Your task to perform on an android device: Open CNN.com Image 0: 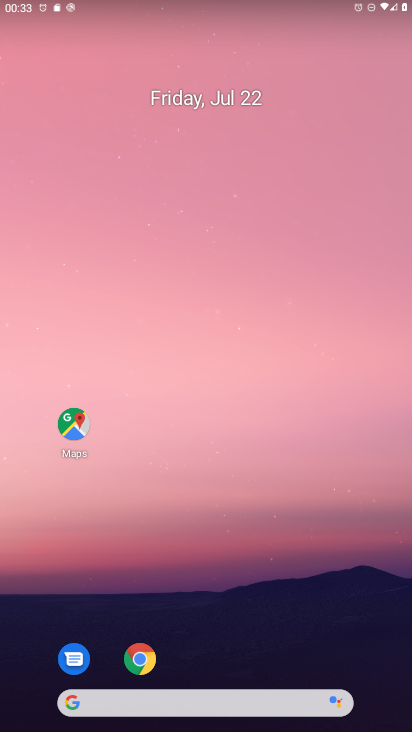
Step 0: click (138, 656)
Your task to perform on an android device: Open CNN.com Image 1: 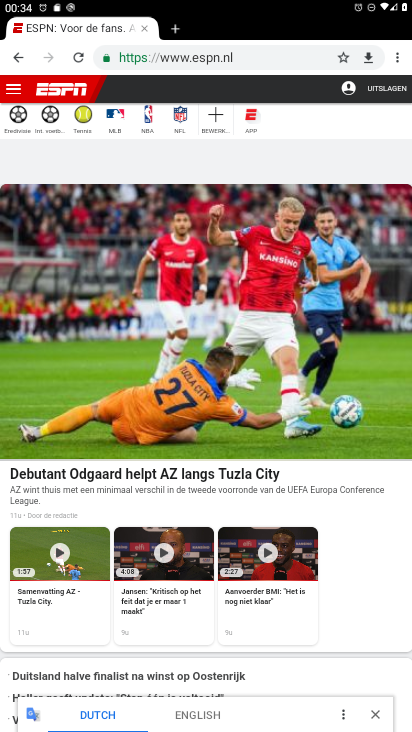
Step 1: click (274, 50)
Your task to perform on an android device: Open CNN.com Image 2: 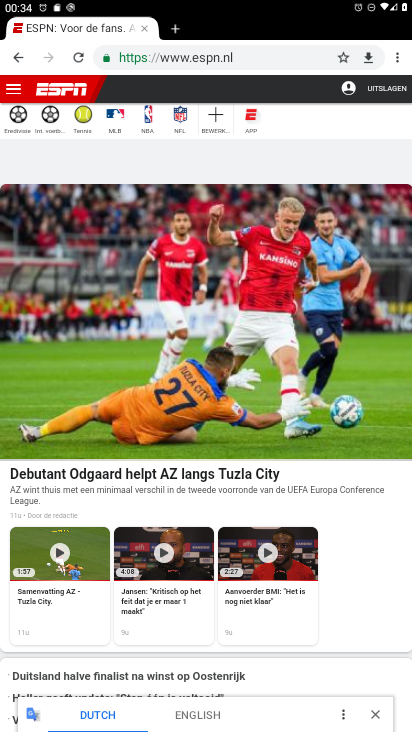
Step 2: type "CNN.com"
Your task to perform on an android device: Open CNN.com Image 3: 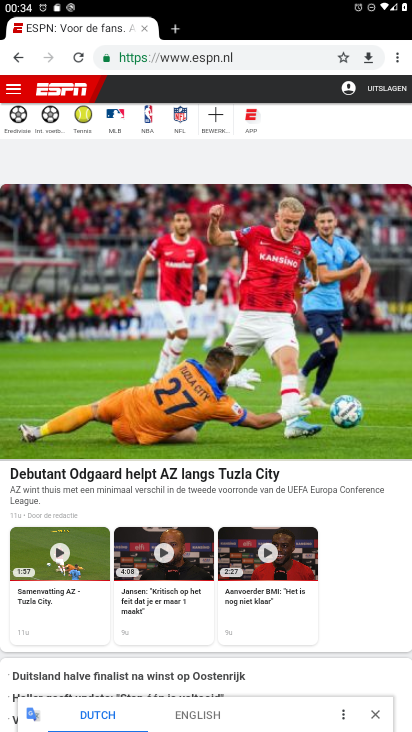
Step 3: click (274, 50)
Your task to perform on an android device: Open CNN.com Image 4: 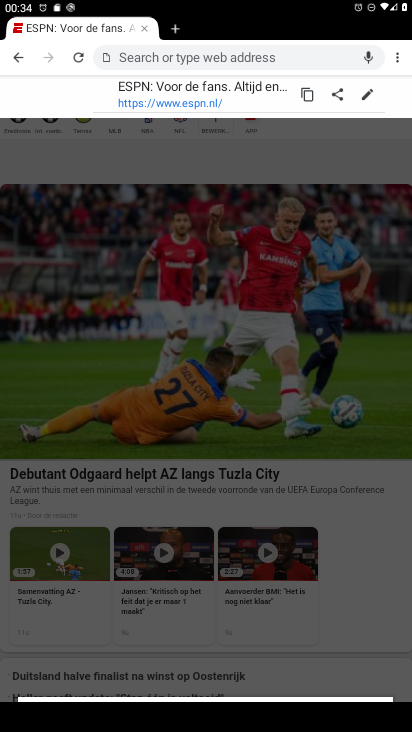
Step 4: click (274, 50)
Your task to perform on an android device: Open CNN.com Image 5: 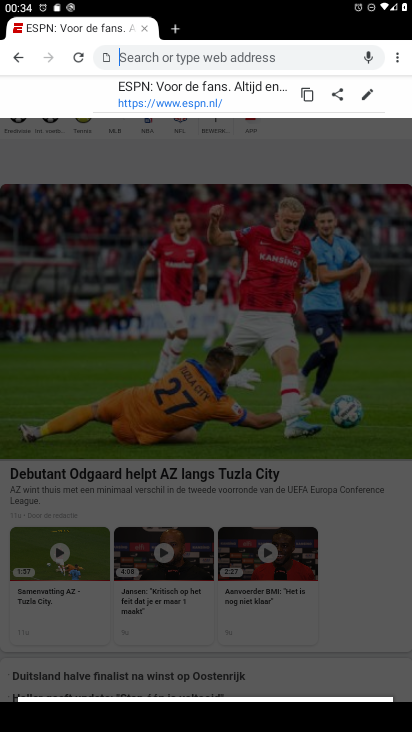
Step 5: click (274, 50)
Your task to perform on an android device: Open CNN.com Image 6: 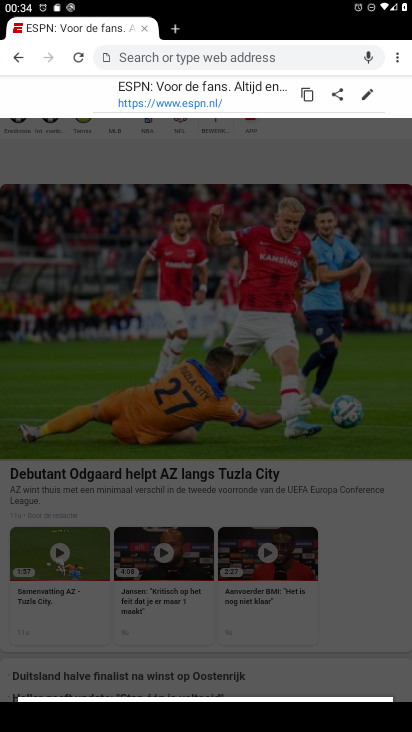
Step 6: type "CNN.com"
Your task to perform on an android device: Open CNN.com Image 7: 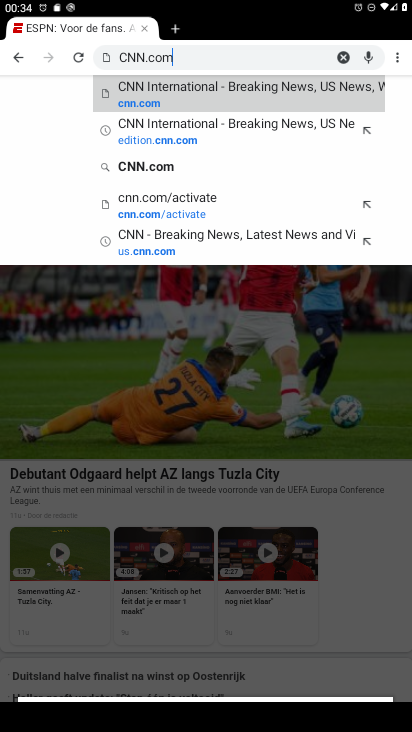
Step 7: type ""
Your task to perform on an android device: Open CNN.com Image 8: 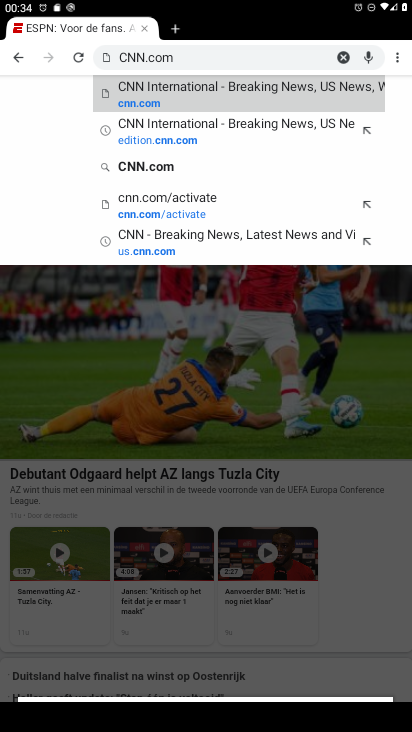
Step 8: click (155, 163)
Your task to perform on an android device: Open CNN.com Image 9: 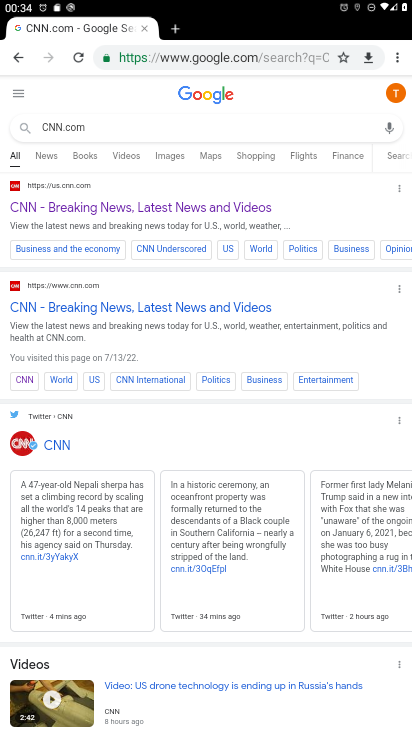
Step 9: click (137, 215)
Your task to perform on an android device: Open CNN.com Image 10: 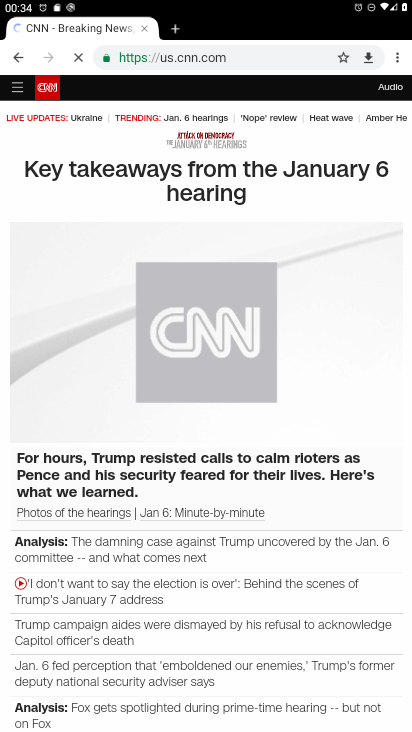
Step 10: task complete